Your task to perform on an android device: uninstall "McDonald's" Image 0: 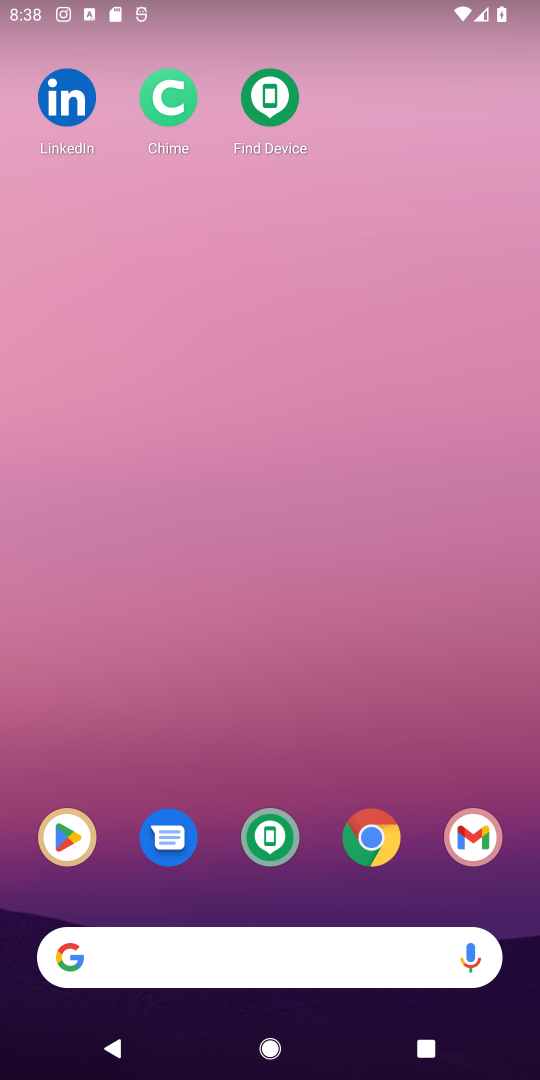
Step 0: click (66, 842)
Your task to perform on an android device: uninstall "McDonald's" Image 1: 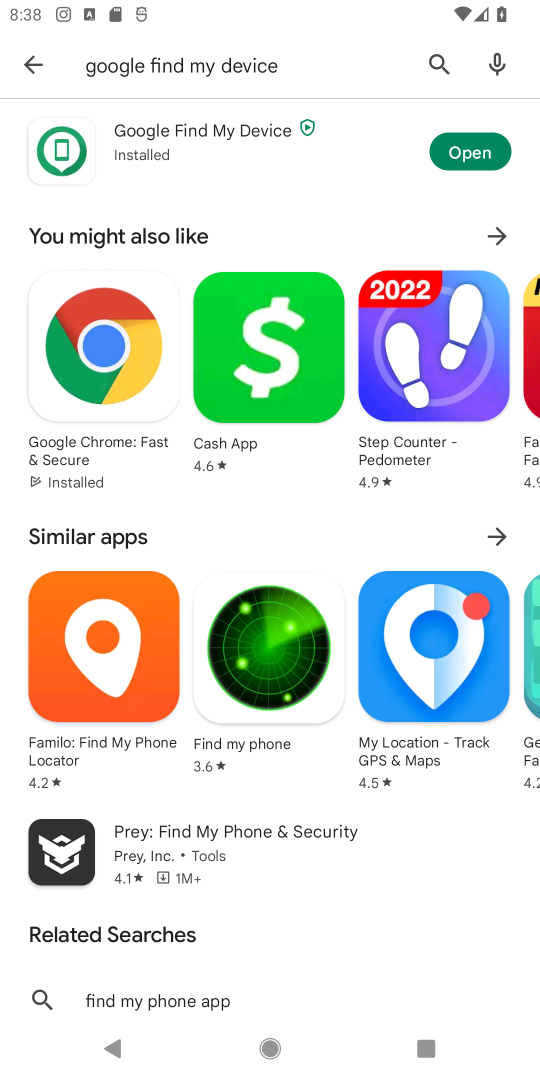
Step 1: click (437, 59)
Your task to perform on an android device: uninstall "McDonald's" Image 2: 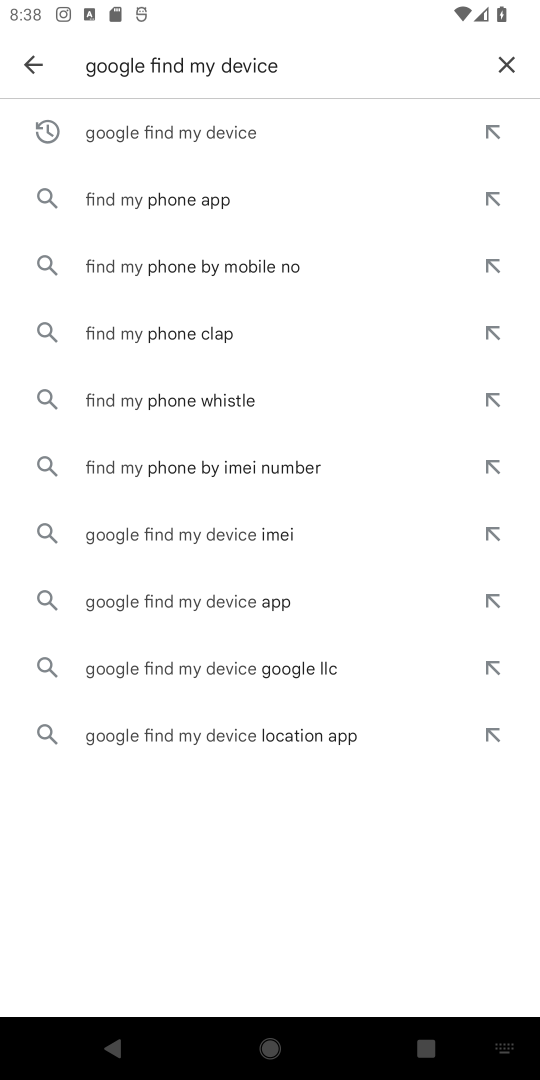
Step 2: click (505, 64)
Your task to perform on an android device: uninstall "McDonald's" Image 3: 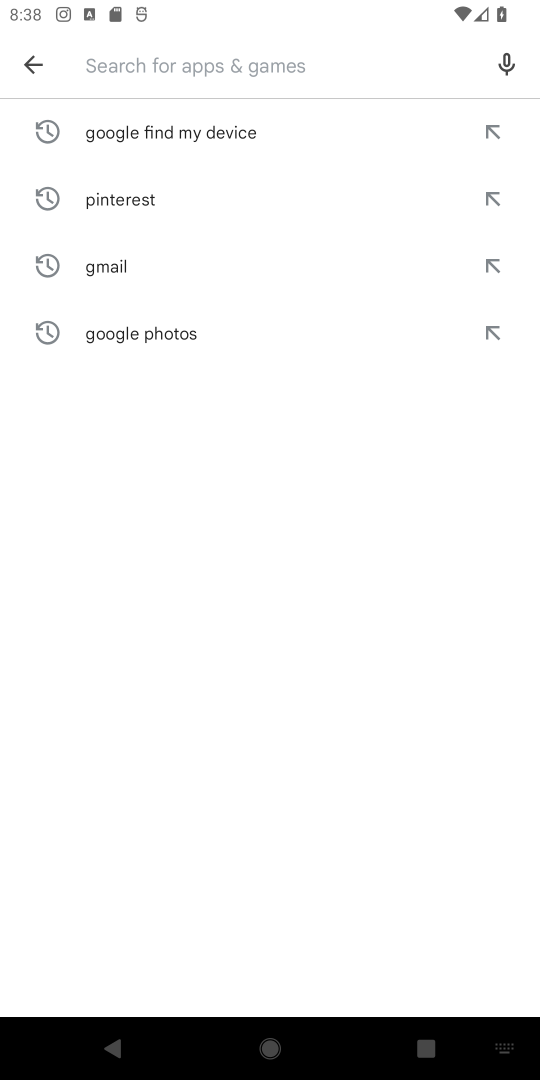
Step 3: type "McDonald's"
Your task to perform on an android device: uninstall "McDonald's" Image 4: 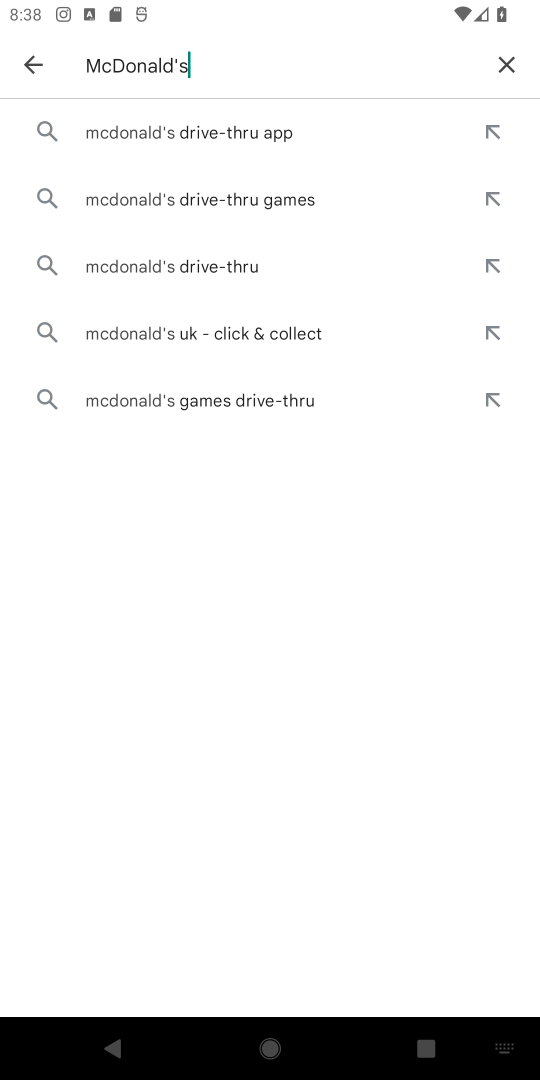
Step 4: click (147, 140)
Your task to perform on an android device: uninstall "McDonald's" Image 5: 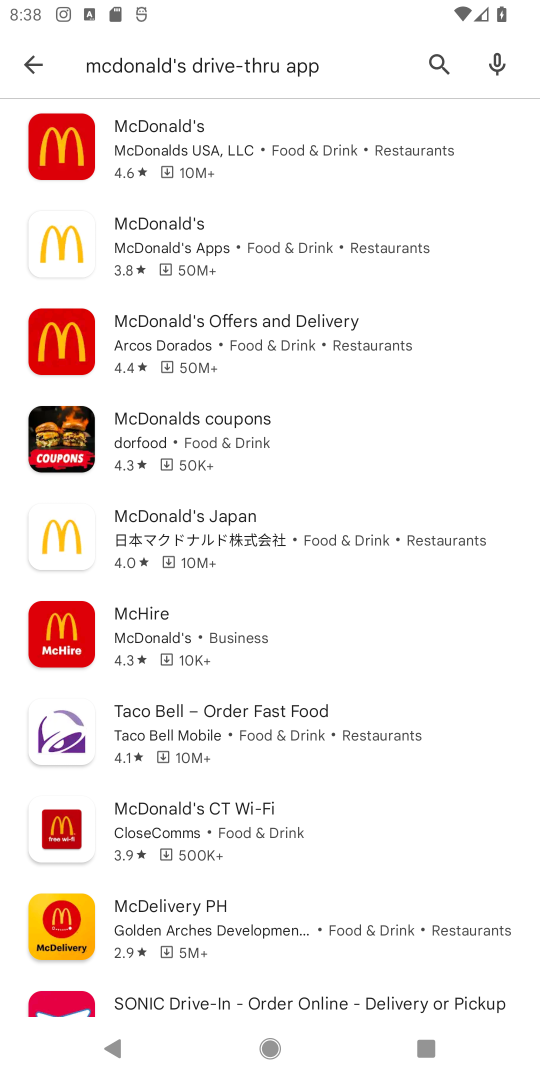
Step 5: click (152, 242)
Your task to perform on an android device: uninstall "McDonald's" Image 6: 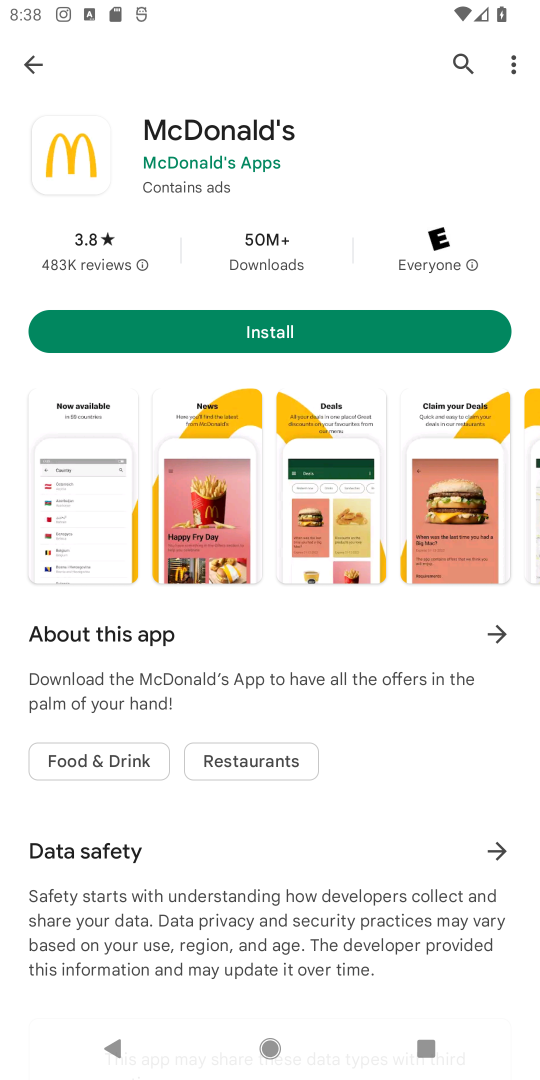
Step 6: click (35, 58)
Your task to perform on an android device: uninstall "McDonald's" Image 7: 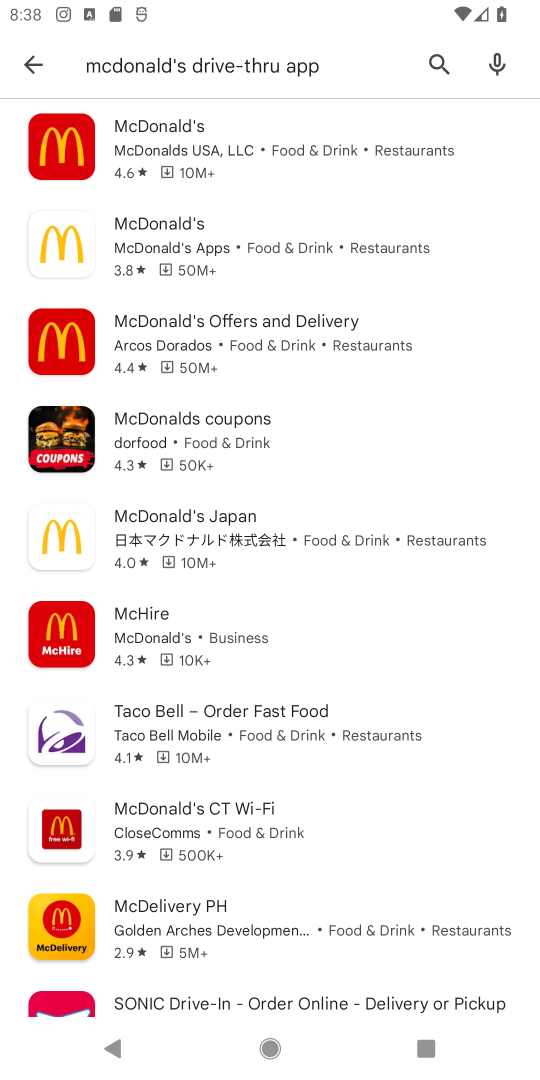
Step 7: click (180, 262)
Your task to perform on an android device: uninstall "McDonald's" Image 8: 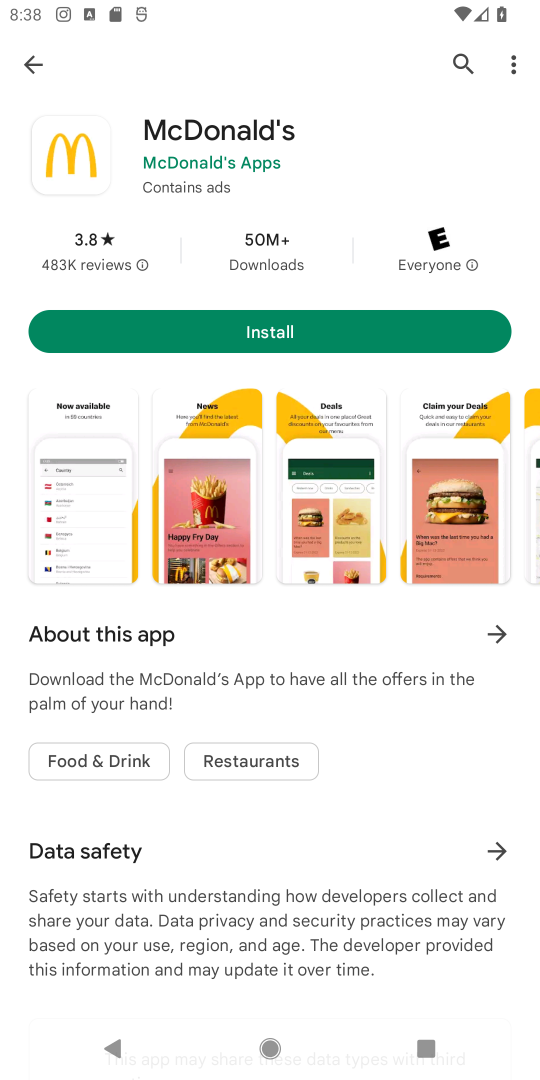
Step 8: task complete